Your task to perform on an android device: What is the news today? Image 0: 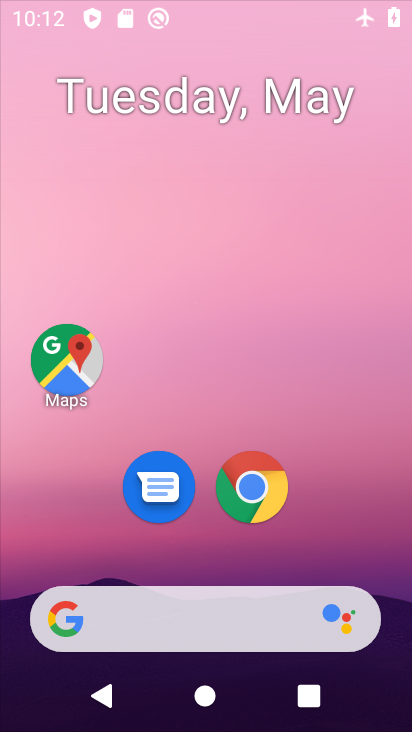
Step 0: drag from (225, 527) to (264, 62)
Your task to perform on an android device: What is the news today? Image 1: 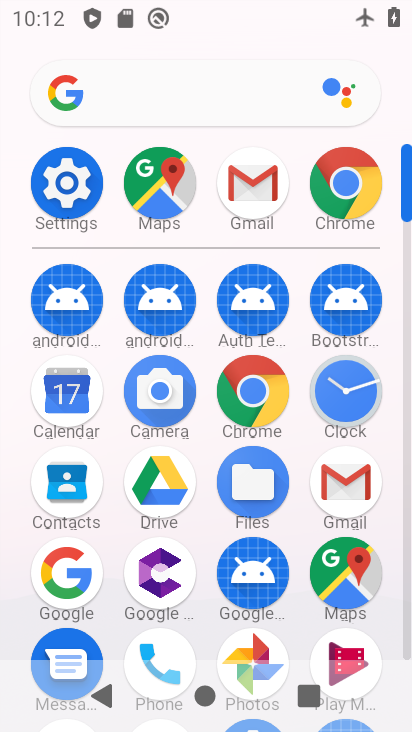
Step 1: click (233, 103)
Your task to perform on an android device: What is the news today? Image 2: 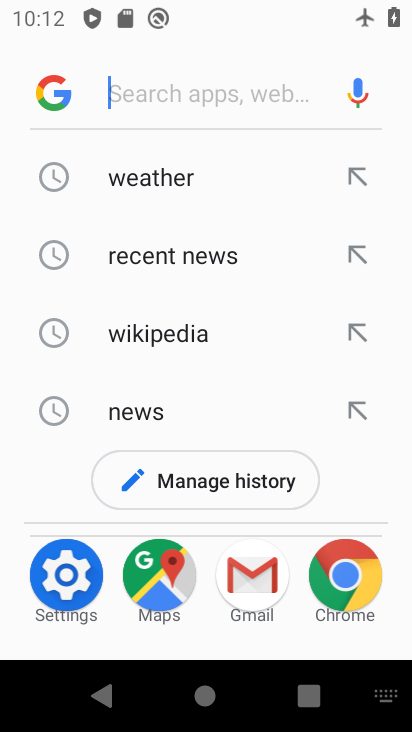
Step 2: click (187, 255)
Your task to perform on an android device: What is the news today? Image 3: 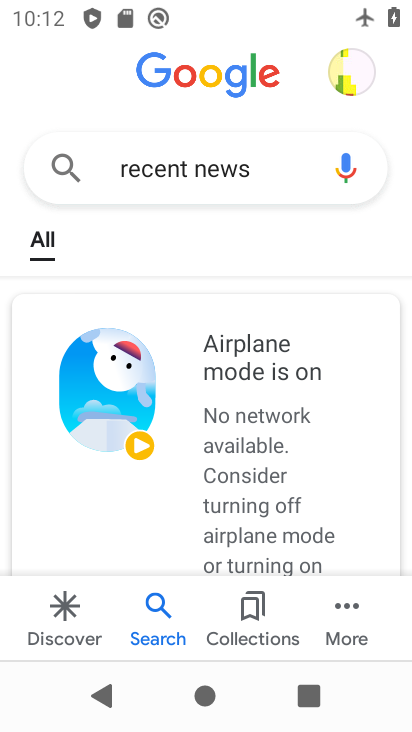
Step 3: task complete